Your task to perform on an android device: Search for Mexican restaurants on Maps Image 0: 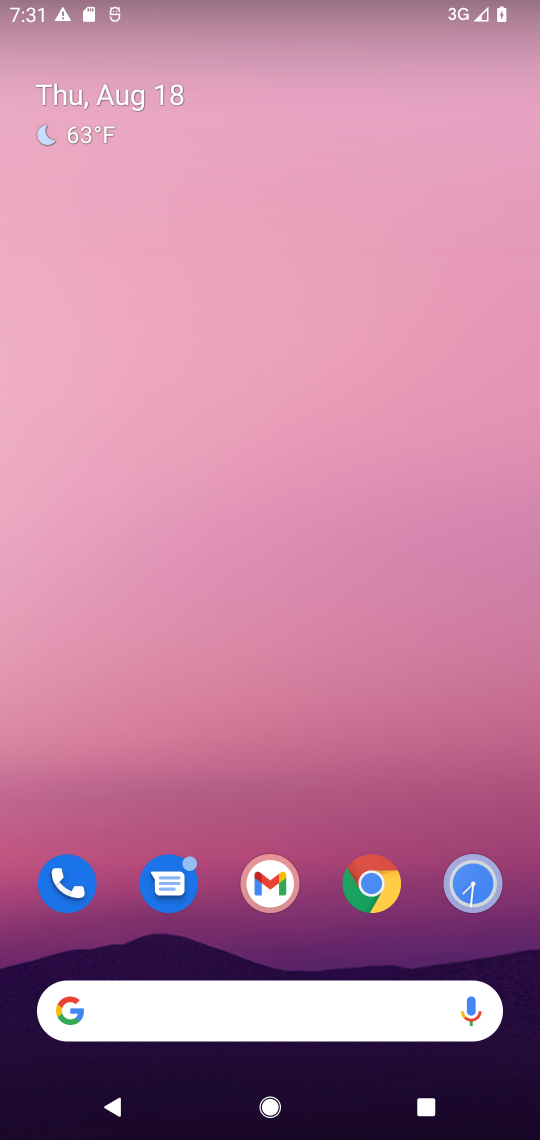
Step 0: drag from (58, 1054) to (179, 490)
Your task to perform on an android device: Search for Mexican restaurants on Maps Image 1: 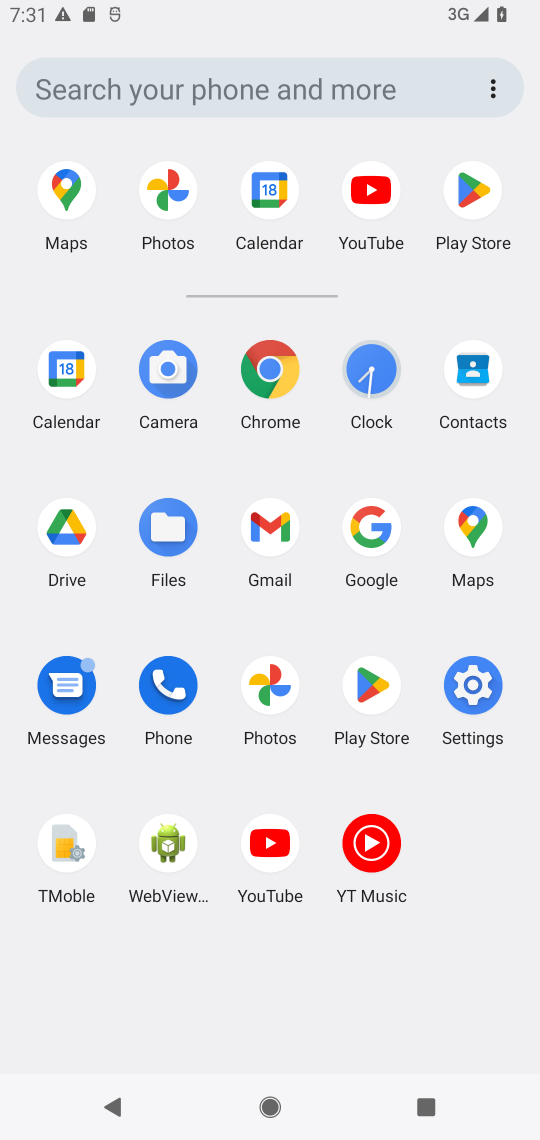
Step 1: click (55, 204)
Your task to perform on an android device: Search for Mexican restaurants on Maps Image 2: 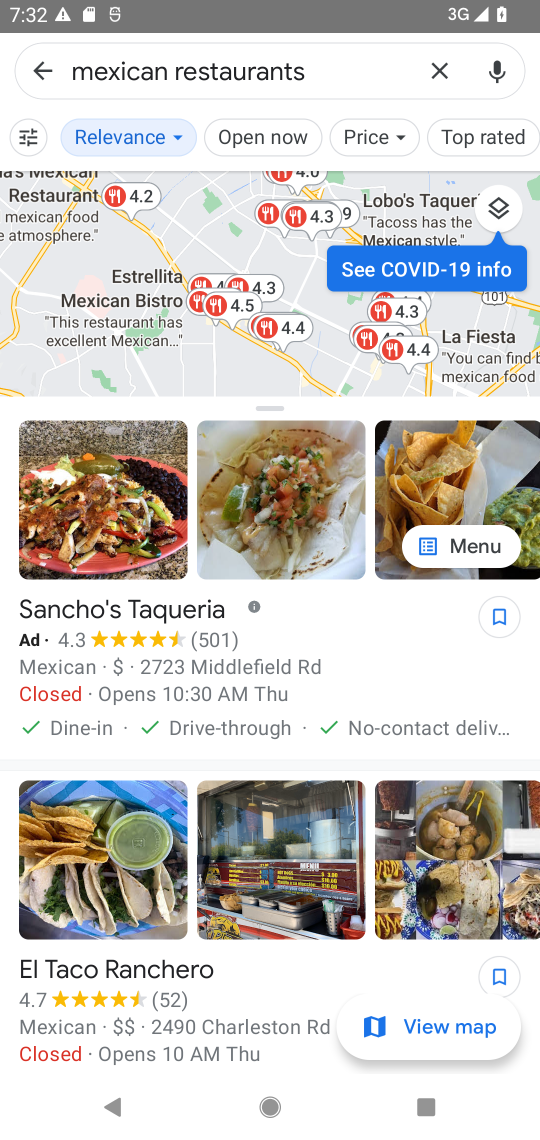
Step 2: task complete